Your task to perform on an android device: Show me the alarms in the clock app Image 0: 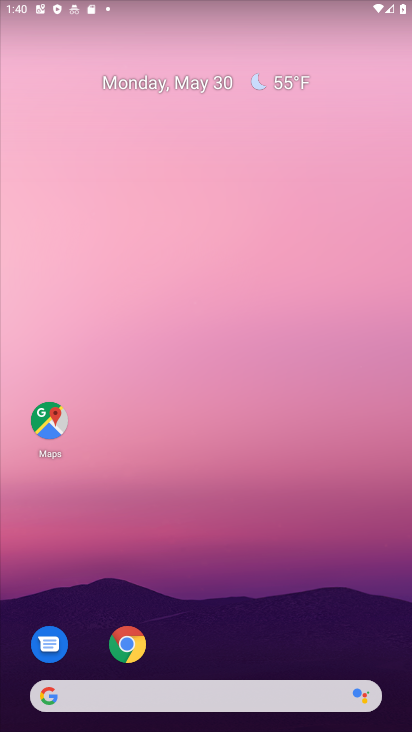
Step 0: drag from (250, 642) to (185, 25)
Your task to perform on an android device: Show me the alarms in the clock app Image 1: 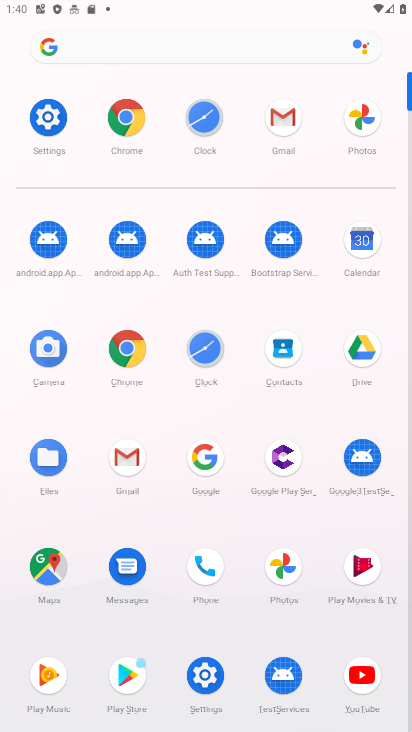
Step 1: click (202, 341)
Your task to perform on an android device: Show me the alarms in the clock app Image 2: 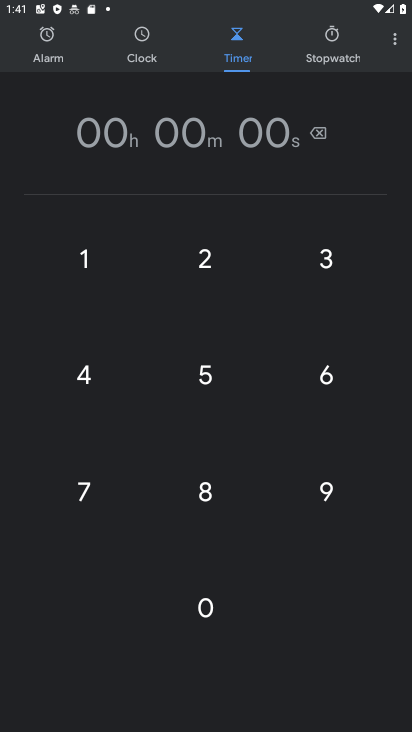
Step 2: click (385, 48)
Your task to perform on an android device: Show me the alarms in the clock app Image 3: 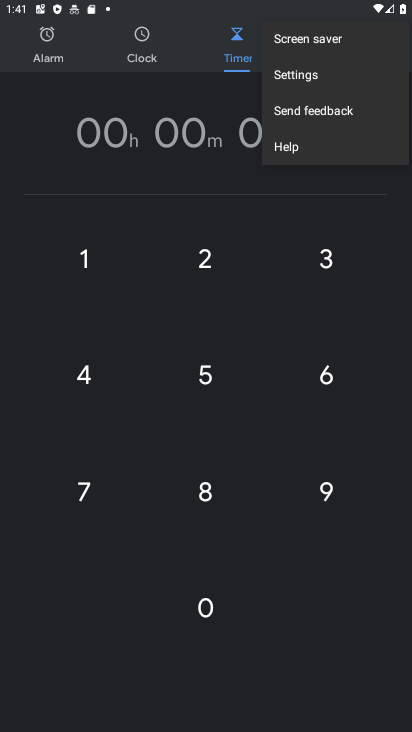
Step 3: click (86, 33)
Your task to perform on an android device: Show me the alarms in the clock app Image 4: 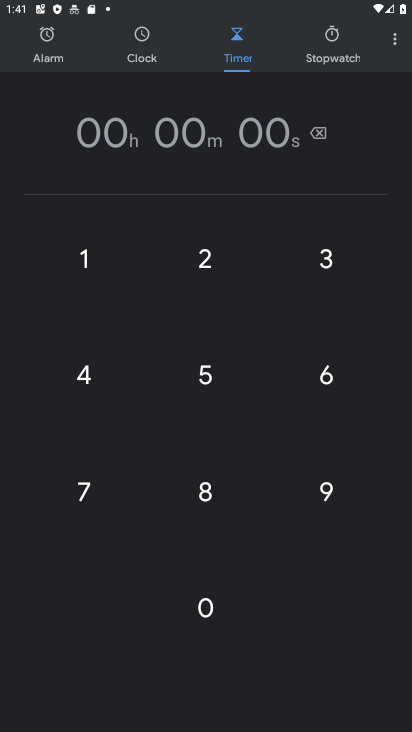
Step 4: click (69, 39)
Your task to perform on an android device: Show me the alarms in the clock app Image 5: 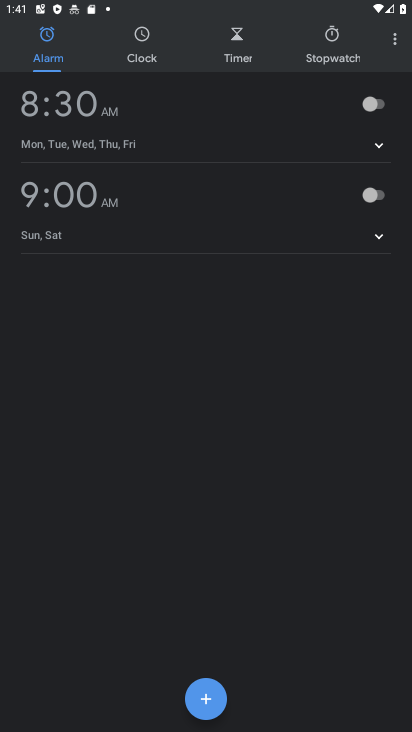
Step 5: task complete